Your task to perform on an android device: Go to internet settings Image 0: 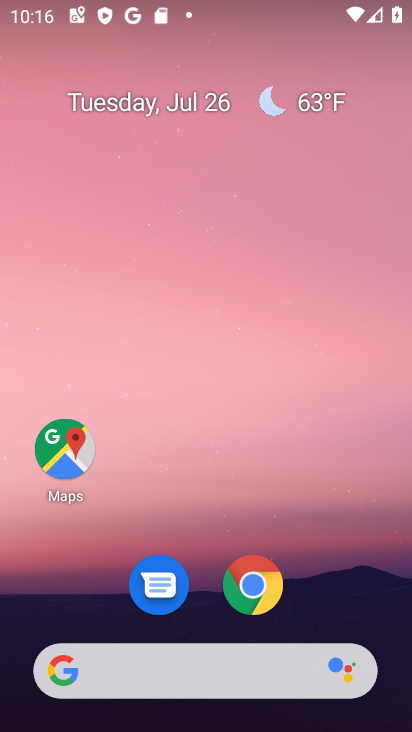
Step 0: drag from (216, 507) to (266, 131)
Your task to perform on an android device: Go to internet settings Image 1: 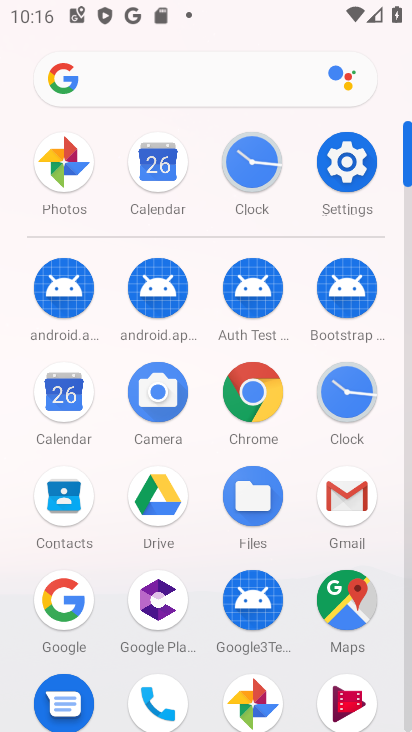
Step 1: click (341, 162)
Your task to perform on an android device: Go to internet settings Image 2: 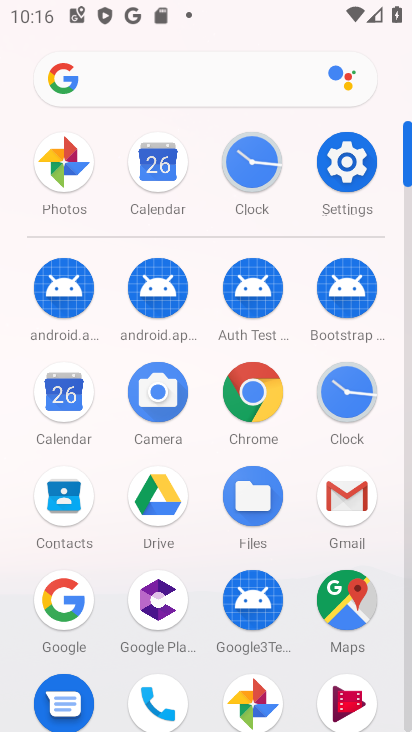
Step 2: click (341, 162)
Your task to perform on an android device: Go to internet settings Image 3: 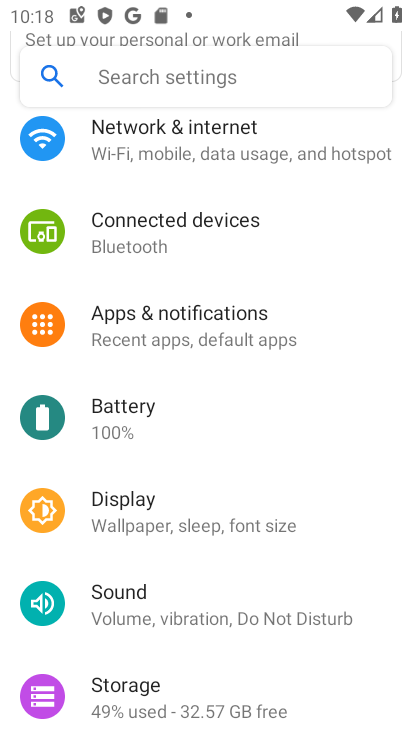
Step 3: click (225, 146)
Your task to perform on an android device: Go to internet settings Image 4: 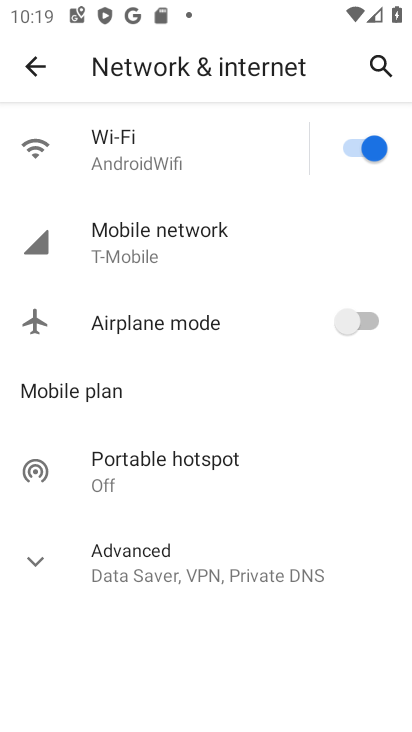
Step 4: task complete